Your task to perform on an android device: Open the Play Movies app and select the watchlist tab. Image 0: 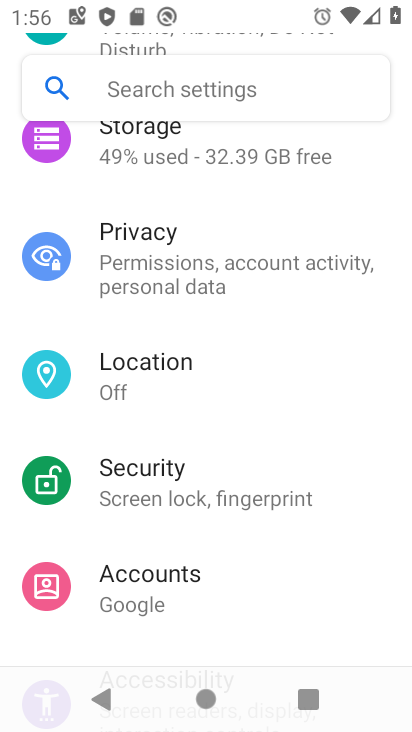
Step 0: press home button
Your task to perform on an android device: Open the Play Movies app and select the watchlist tab. Image 1: 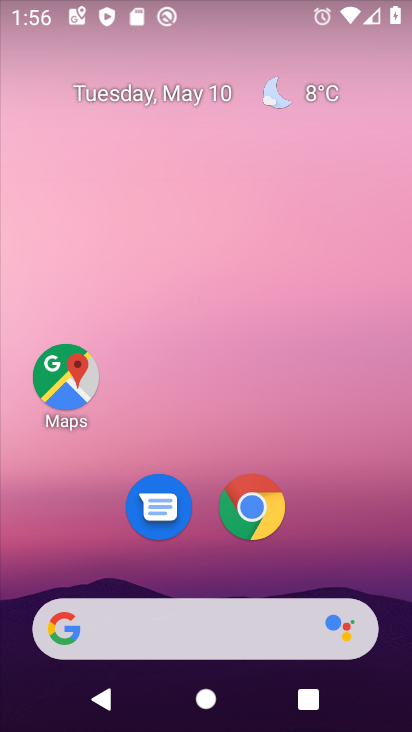
Step 1: drag from (239, 705) to (241, 104)
Your task to perform on an android device: Open the Play Movies app and select the watchlist tab. Image 2: 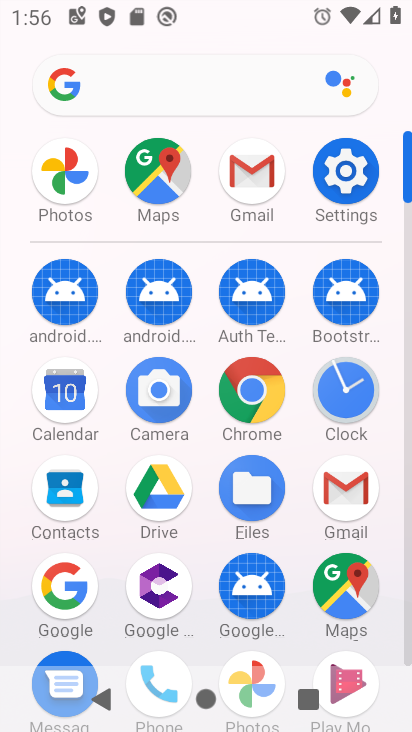
Step 2: drag from (293, 635) to (281, 281)
Your task to perform on an android device: Open the Play Movies app and select the watchlist tab. Image 3: 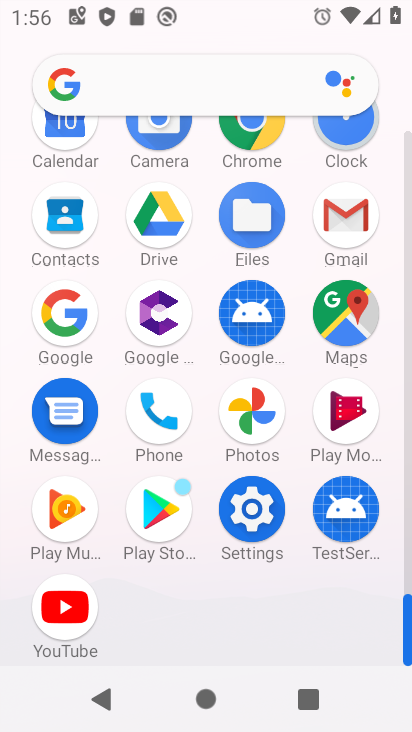
Step 3: click (338, 420)
Your task to perform on an android device: Open the Play Movies app and select the watchlist tab. Image 4: 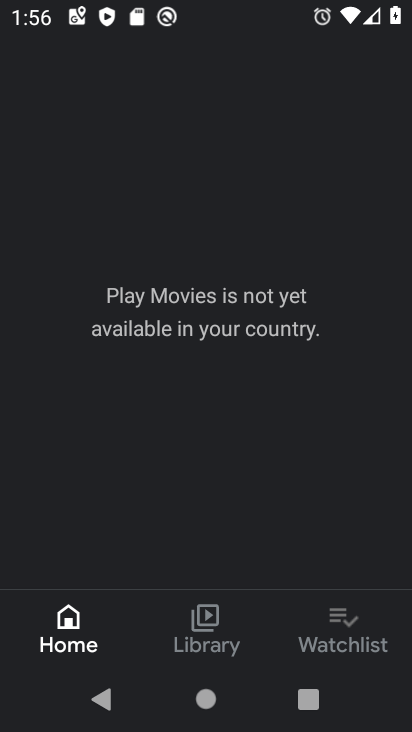
Step 4: click (343, 624)
Your task to perform on an android device: Open the Play Movies app and select the watchlist tab. Image 5: 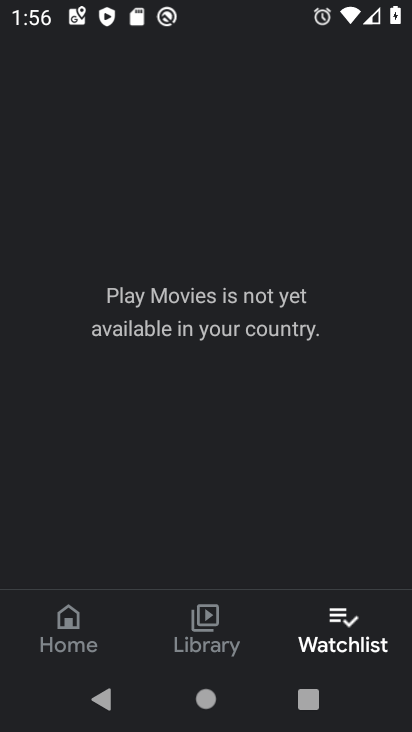
Step 5: task complete